Your task to perform on an android device: turn on location history Image 0: 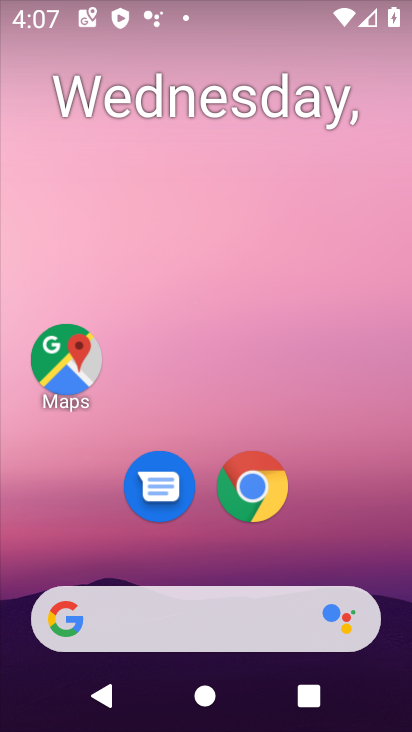
Step 0: drag from (262, 593) to (307, 314)
Your task to perform on an android device: turn on location history Image 1: 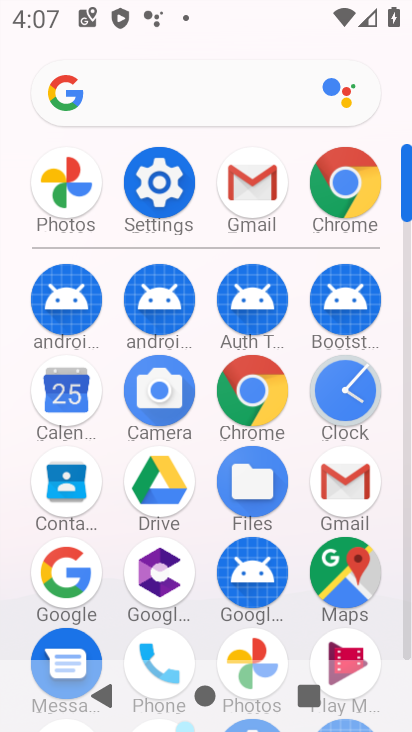
Step 1: click (147, 183)
Your task to perform on an android device: turn on location history Image 2: 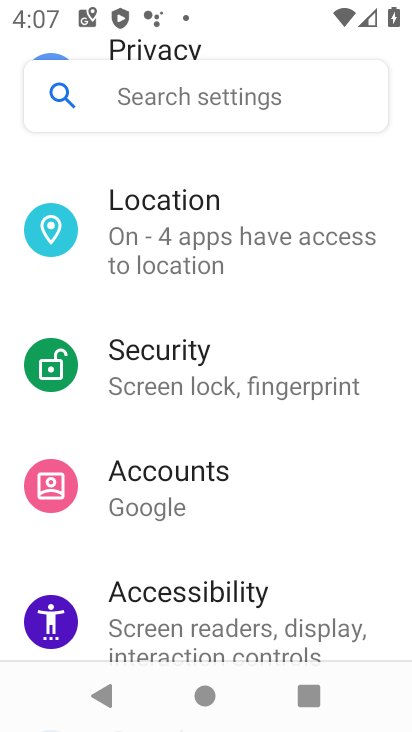
Step 2: drag from (267, 650) to (264, 252)
Your task to perform on an android device: turn on location history Image 3: 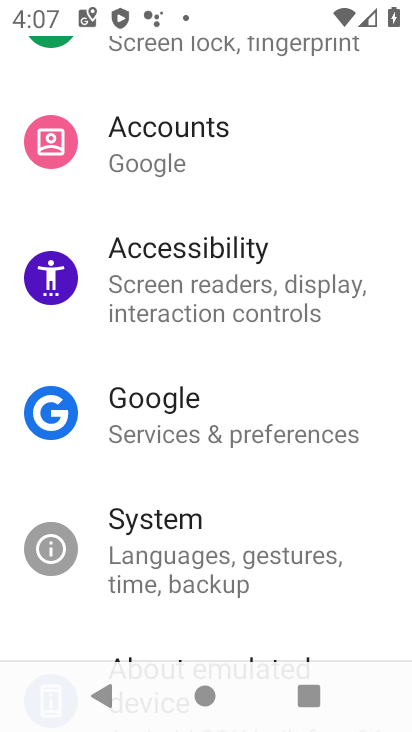
Step 3: drag from (269, 585) to (264, 304)
Your task to perform on an android device: turn on location history Image 4: 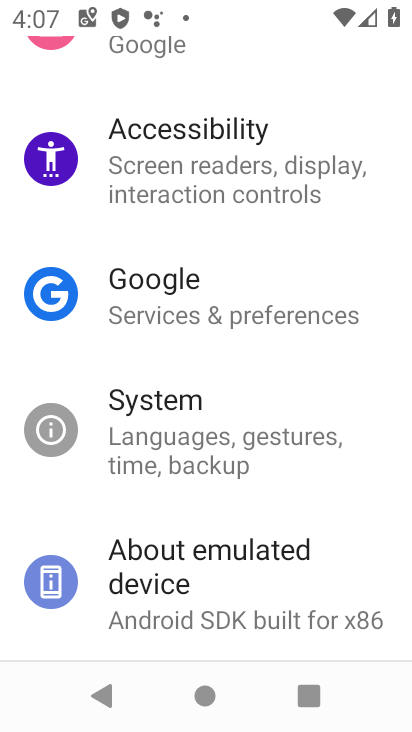
Step 4: drag from (263, 163) to (317, 587)
Your task to perform on an android device: turn on location history Image 5: 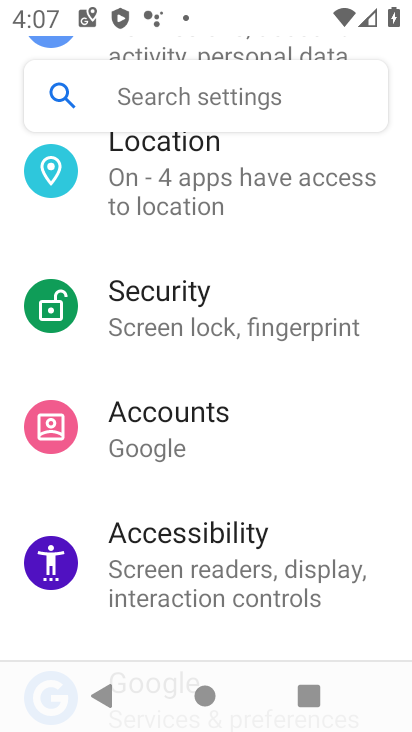
Step 5: click (325, 186)
Your task to perform on an android device: turn on location history Image 6: 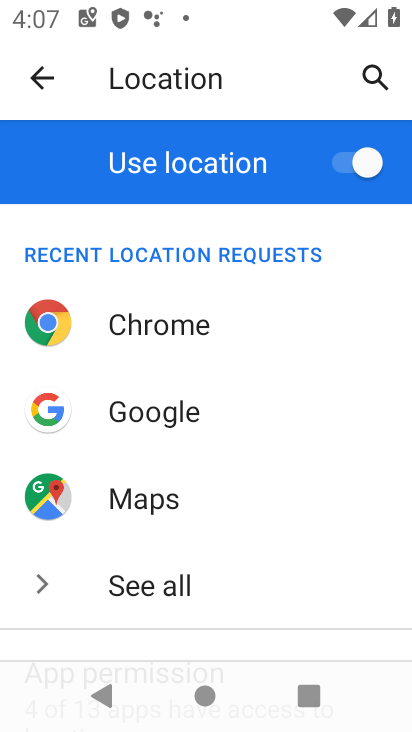
Step 6: drag from (268, 599) to (251, 300)
Your task to perform on an android device: turn on location history Image 7: 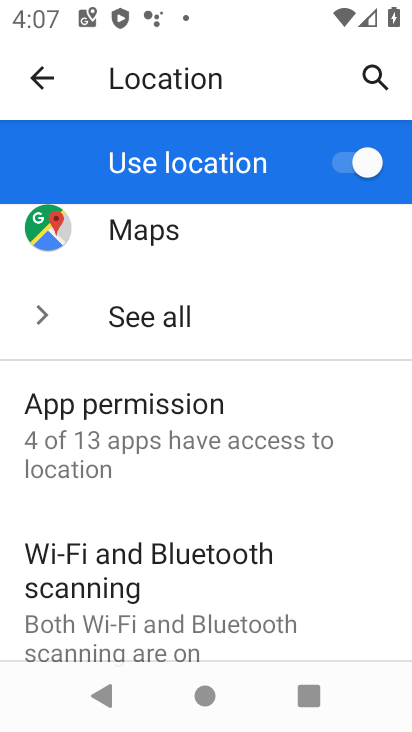
Step 7: drag from (319, 571) to (315, 364)
Your task to perform on an android device: turn on location history Image 8: 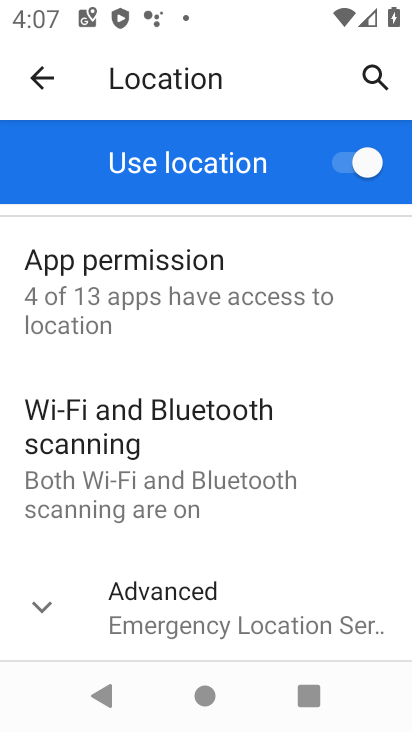
Step 8: click (234, 619)
Your task to perform on an android device: turn on location history Image 9: 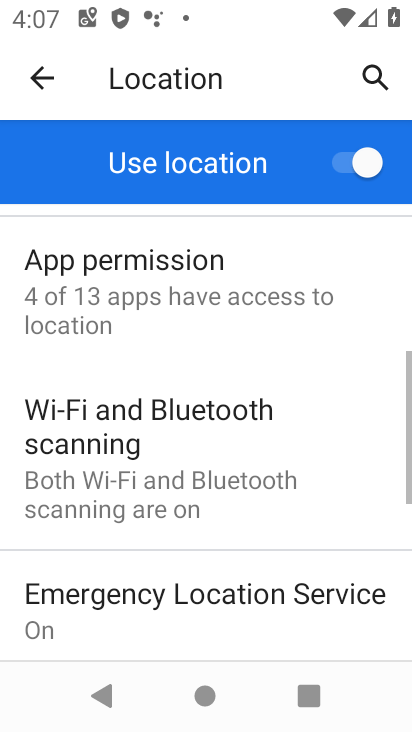
Step 9: drag from (277, 632) to (309, 325)
Your task to perform on an android device: turn on location history Image 10: 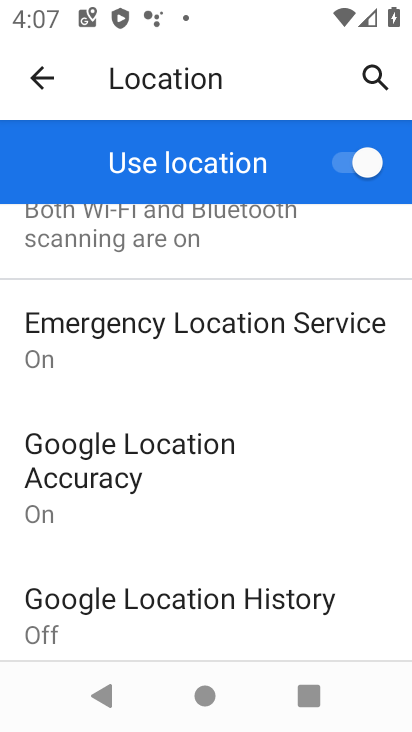
Step 10: drag from (248, 635) to (240, 430)
Your task to perform on an android device: turn on location history Image 11: 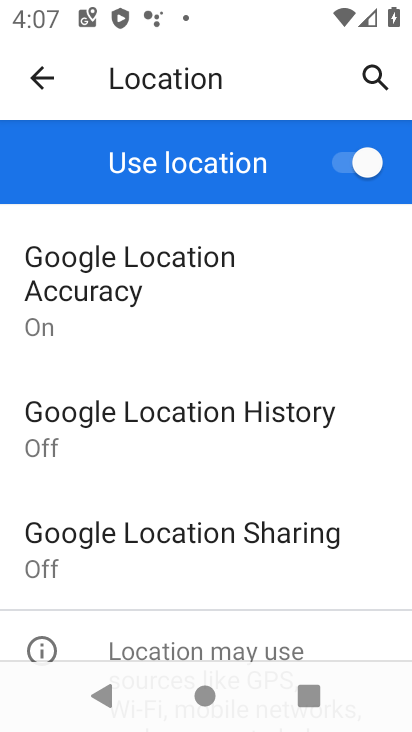
Step 11: click (258, 415)
Your task to perform on an android device: turn on location history Image 12: 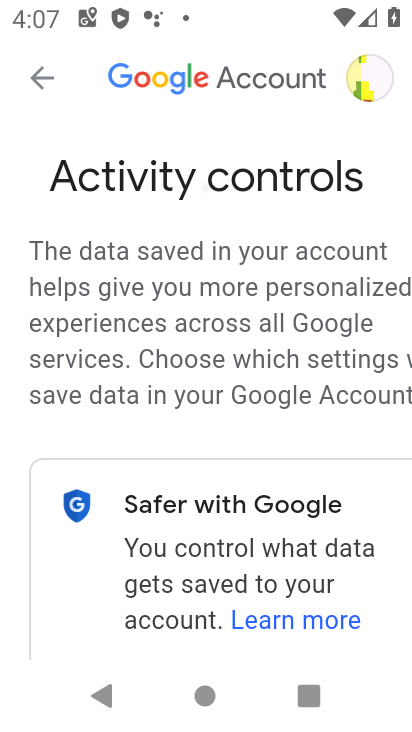
Step 12: drag from (260, 611) to (260, 126)
Your task to perform on an android device: turn on location history Image 13: 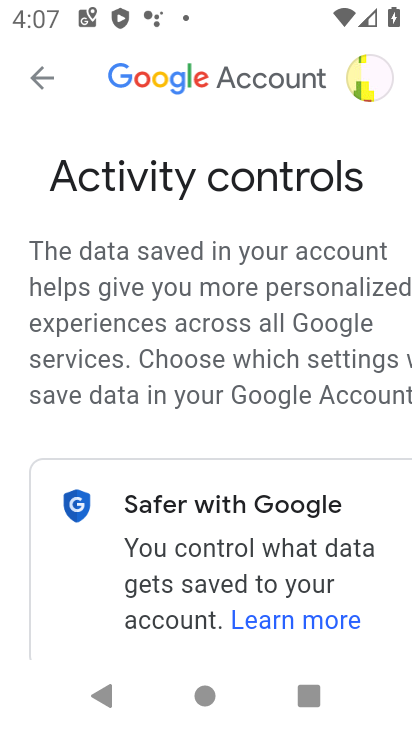
Step 13: drag from (230, 591) to (210, 212)
Your task to perform on an android device: turn on location history Image 14: 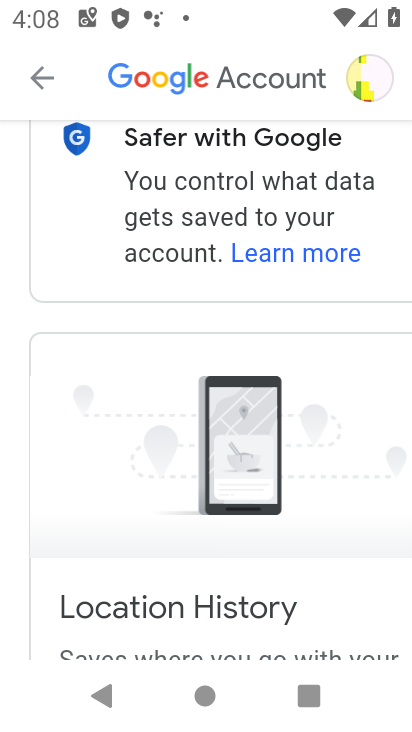
Step 14: drag from (220, 613) to (243, 262)
Your task to perform on an android device: turn on location history Image 15: 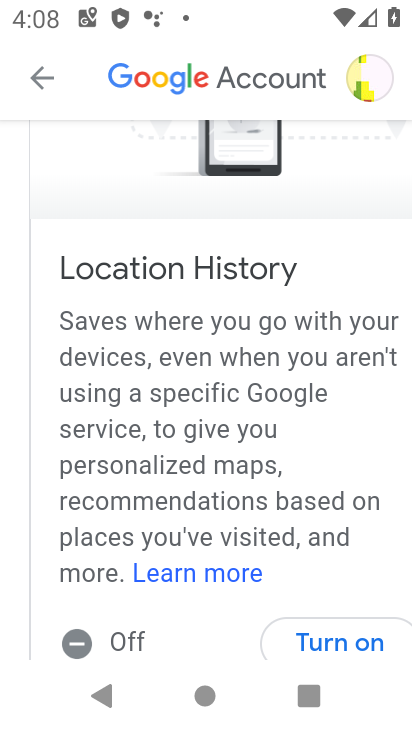
Step 15: click (346, 636)
Your task to perform on an android device: turn on location history Image 16: 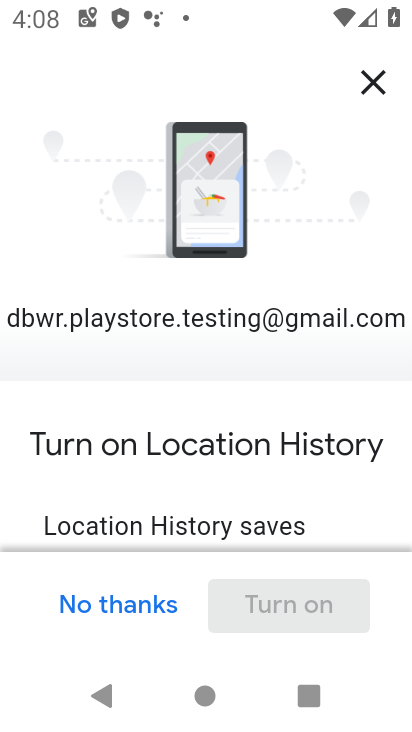
Step 16: drag from (292, 536) to (312, 149)
Your task to perform on an android device: turn on location history Image 17: 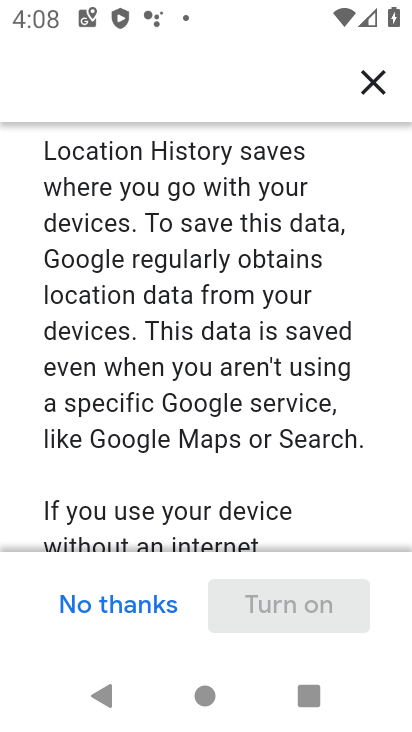
Step 17: drag from (296, 500) to (285, 183)
Your task to perform on an android device: turn on location history Image 18: 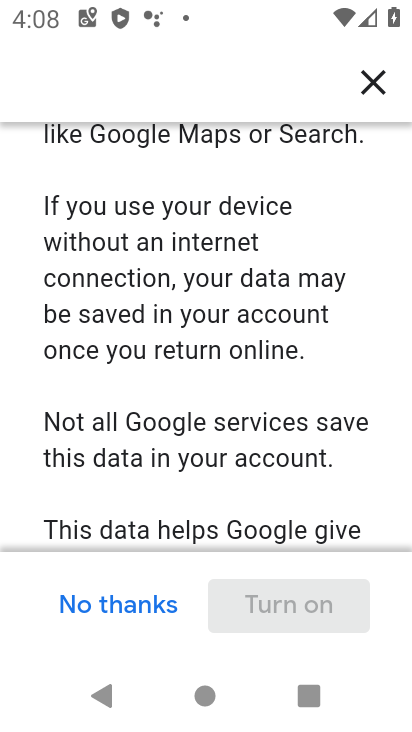
Step 18: drag from (318, 543) to (372, 105)
Your task to perform on an android device: turn on location history Image 19: 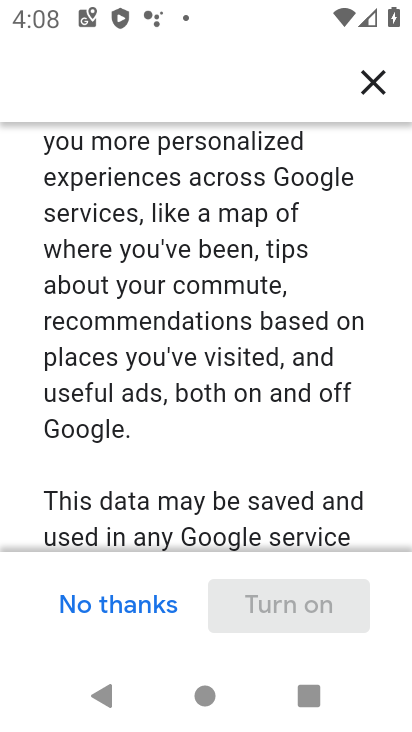
Step 19: drag from (307, 520) to (329, 119)
Your task to perform on an android device: turn on location history Image 20: 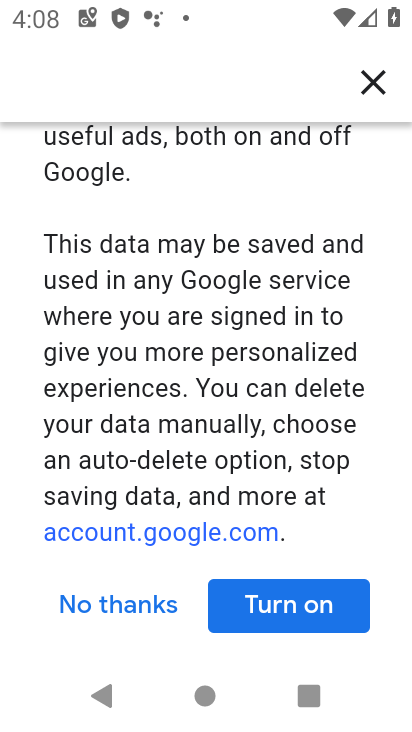
Step 20: click (313, 600)
Your task to perform on an android device: turn on location history Image 21: 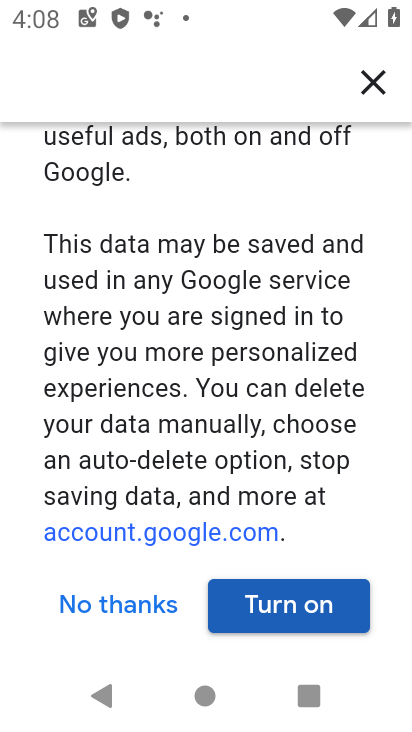
Step 21: drag from (313, 545) to (325, 308)
Your task to perform on an android device: turn on location history Image 22: 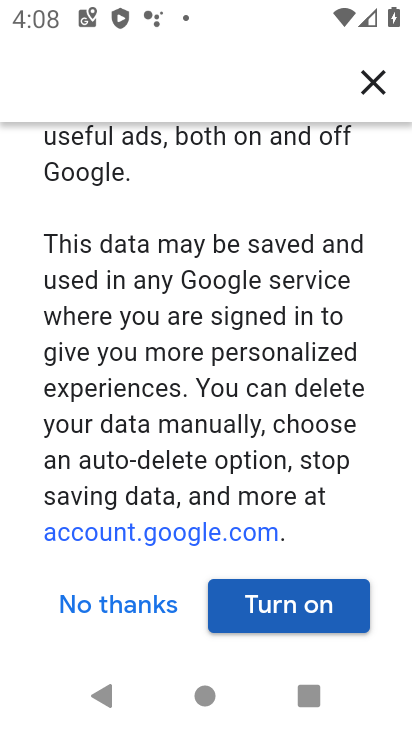
Step 22: click (338, 610)
Your task to perform on an android device: turn on location history Image 23: 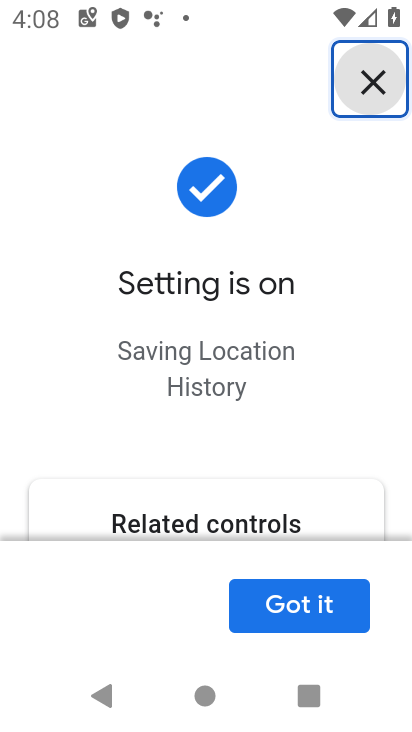
Step 23: click (298, 605)
Your task to perform on an android device: turn on location history Image 24: 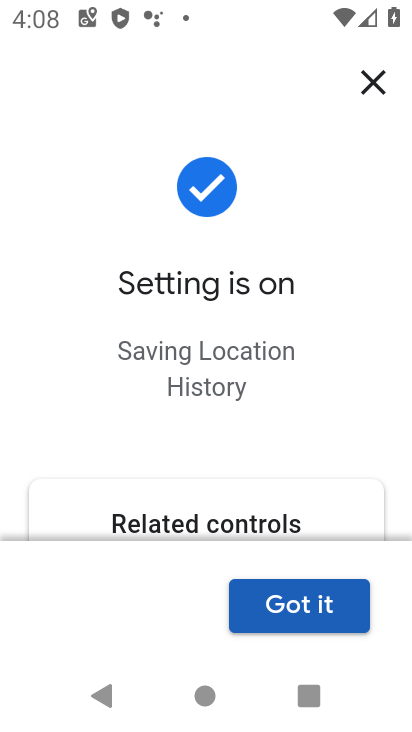
Step 24: click (299, 617)
Your task to perform on an android device: turn on location history Image 25: 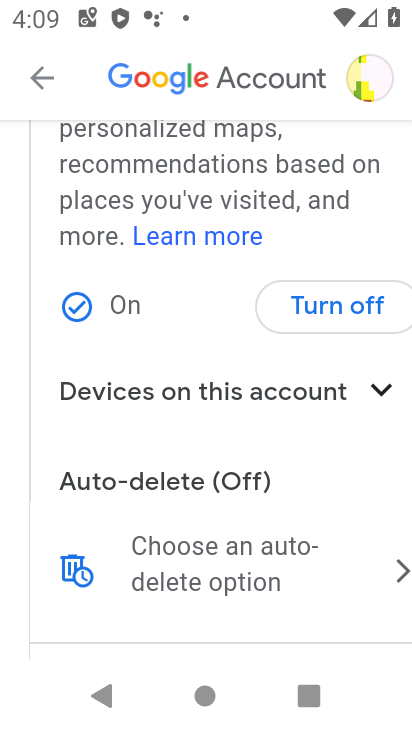
Step 25: task complete